Your task to perform on an android device: open wifi settings Image 0: 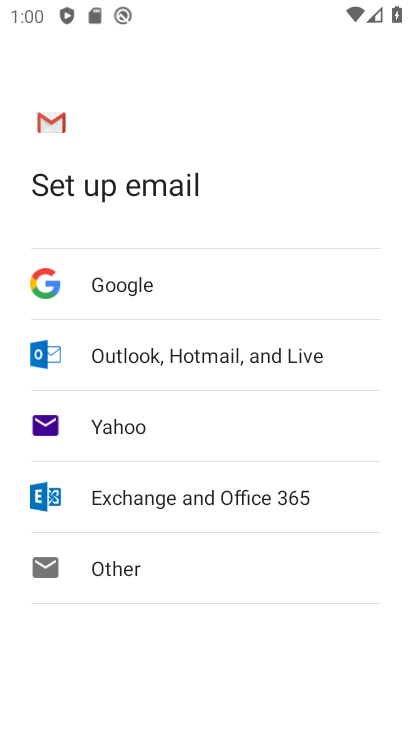
Step 0: press home button
Your task to perform on an android device: open wifi settings Image 1: 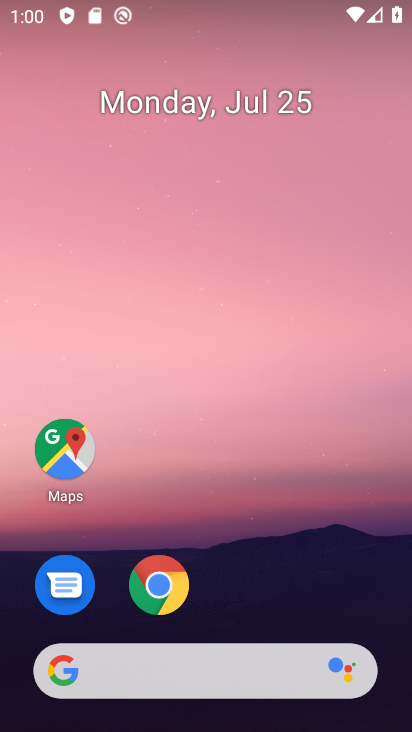
Step 1: drag from (197, 654) to (330, 7)
Your task to perform on an android device: open wifi settings Image 2: 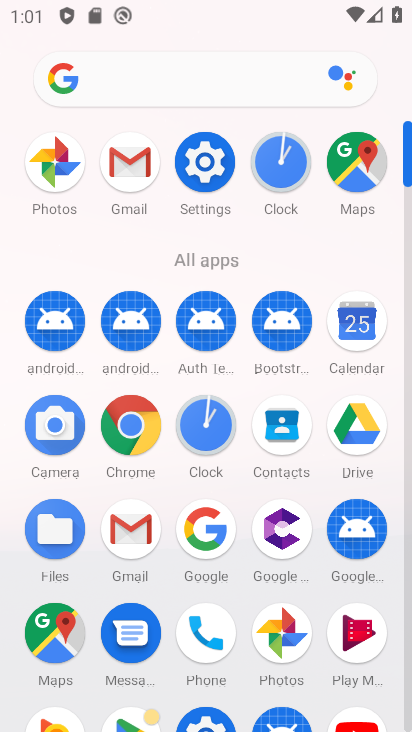
Step 2: click (208, 178)
Your task to perform on an android device: open wifi settings Image 3: 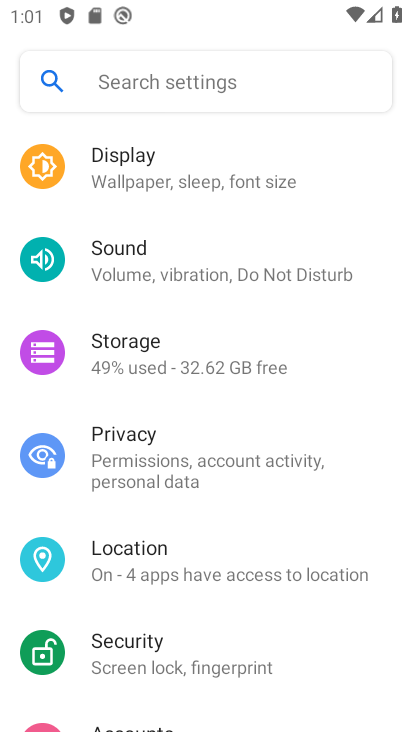
Step 3: drag from (164, 178) to (147, 509)
Your task to perform on an android device: open wifi settings Image 4: 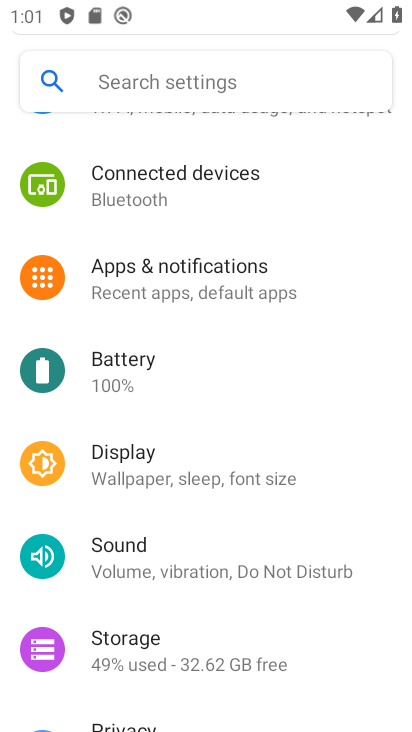
Step 4: drag from (164, 178) to (131, 603)
Your task to perform on an android device: open wifi settings Image 5: 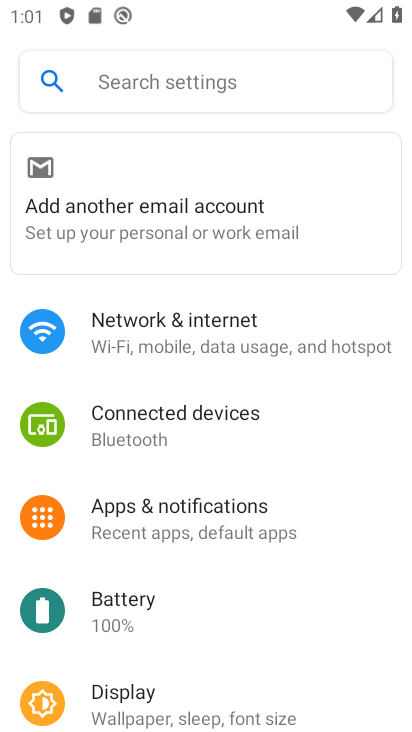
Step 5: click (174, 328)
Your task to perform on an android device: open wifi settings Image 6: 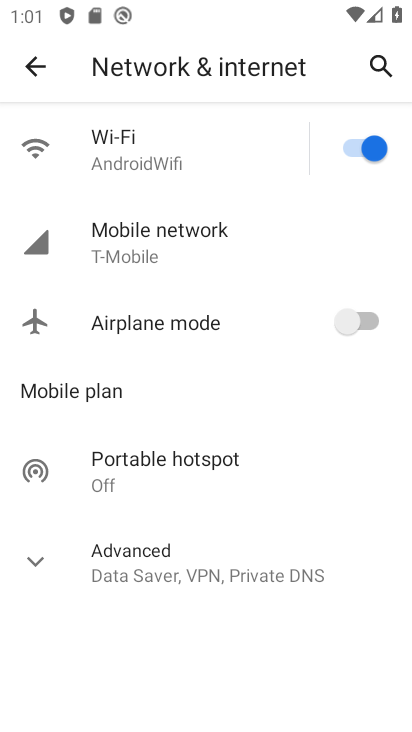
Step 6: click (101, 140)
Your task to perform on an android device: open wifi settings Image 7: 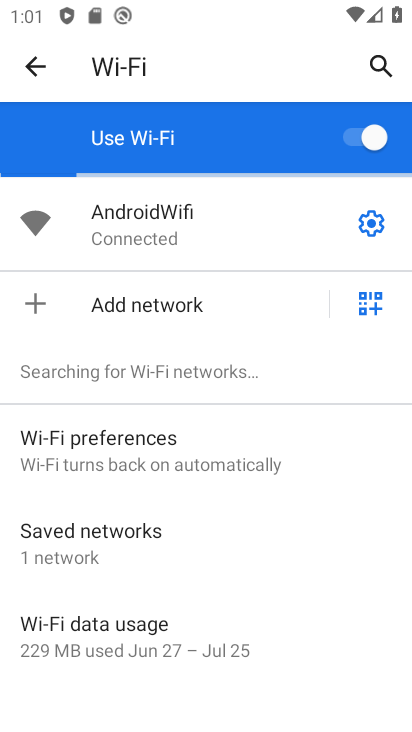
Step 7: task complete